Your task to perform on an android device: Search for Mexican restaurants on Maps Image 0: 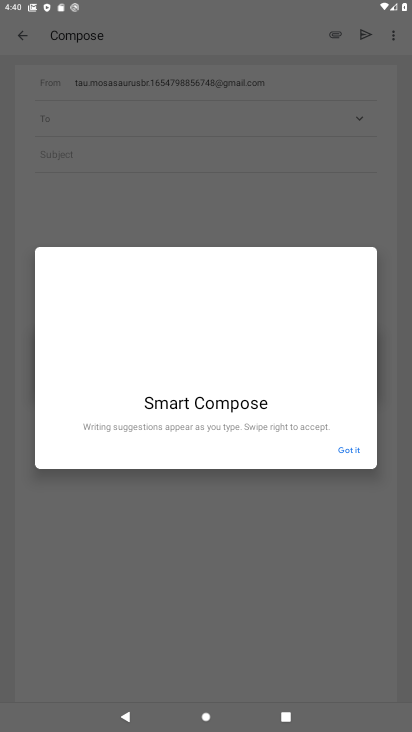
Step 0: press home button
Your task to perform on an android device: Search for Mexican restaurants on Maps Image 1: 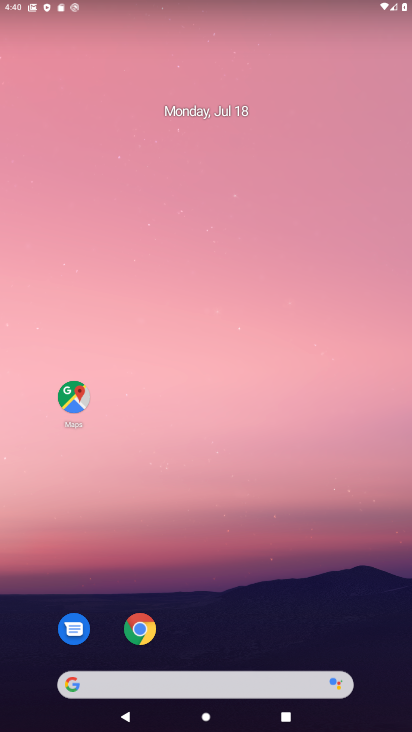
Step 1: click (76, 401)
Your task to perform on an android device: Search for Mexican restaurants on Maps Image 2: 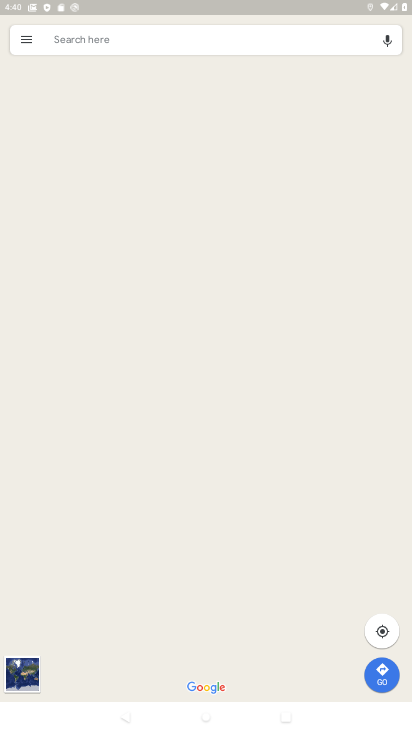
Step 2: click (158, 47)
Your task to perform on an android device: Search for Mexican restaurants on Maps Image 3: 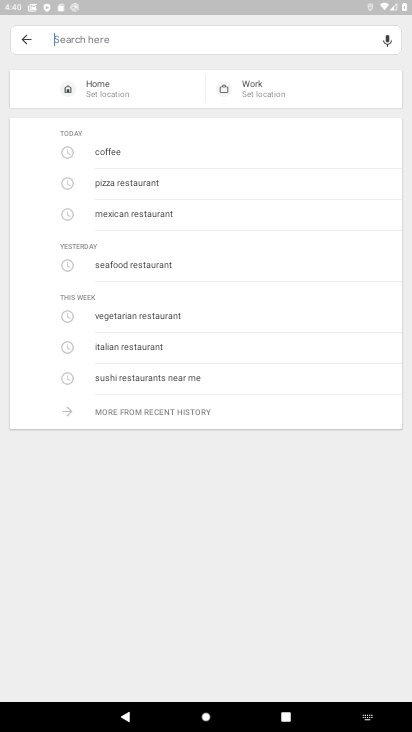
Step 3: type "Mexican restaurants"
Your task to perform on an android device: Search for Mexican restaurants on Maps Image 4: 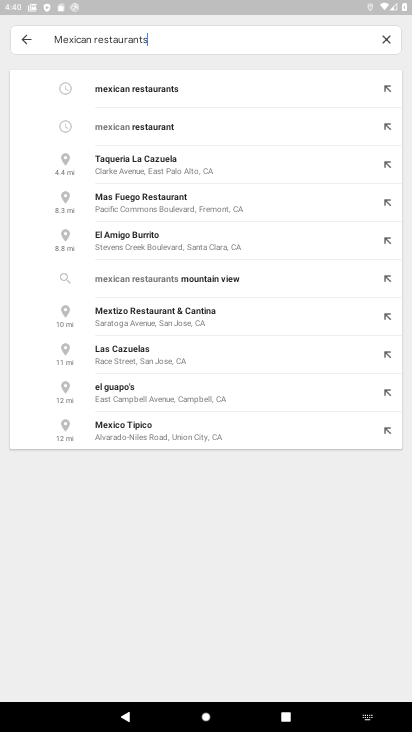
Step 4: click (188, 86)
Your task to perform on an android device: Search for Mexican restaurants on Maps Image 5: 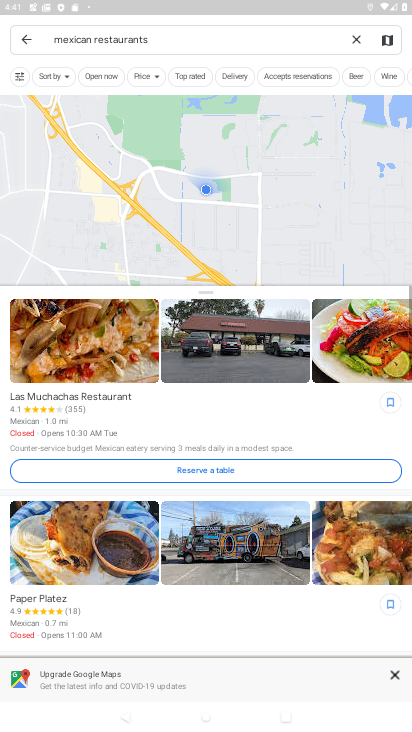
Step 5: task complete